Your task to perform on an android device: open a bookmark in the chrome app Image 0: 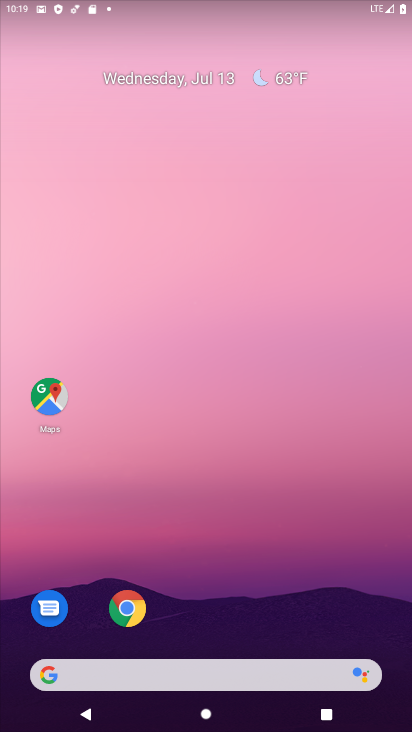
Step 0: click (127, 624)
Your task to perform on an android device: open a bookmark in the chrome app Image 1: 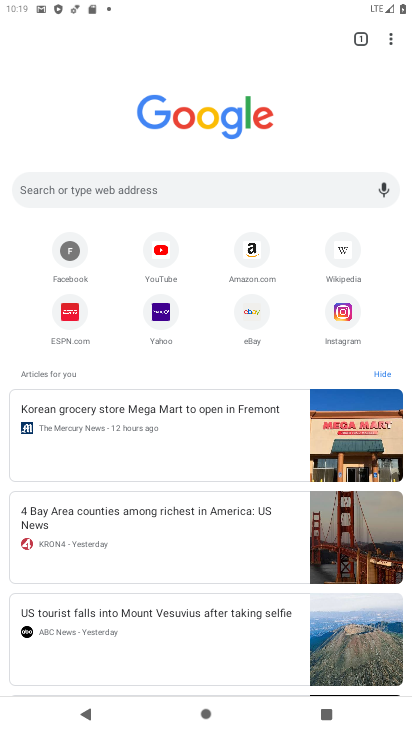
Step 1: click (394, 39)
Your task to perform on an android device: open a bookmark in the chrome app Image 2: 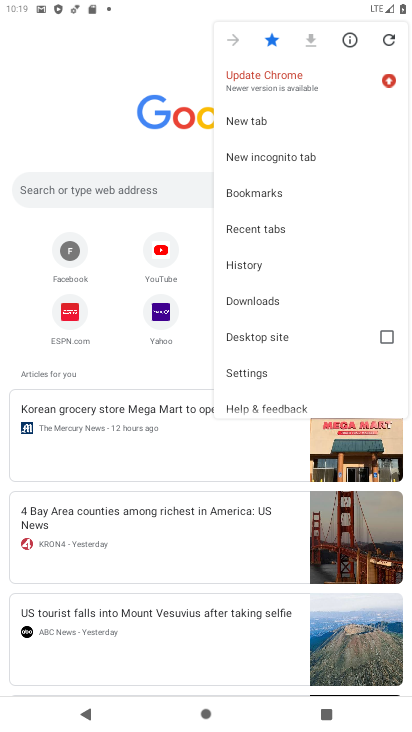
Step 2: click (261, 188)
Your task to perform on an android device: open a bookmark in the chrome app Image 3: 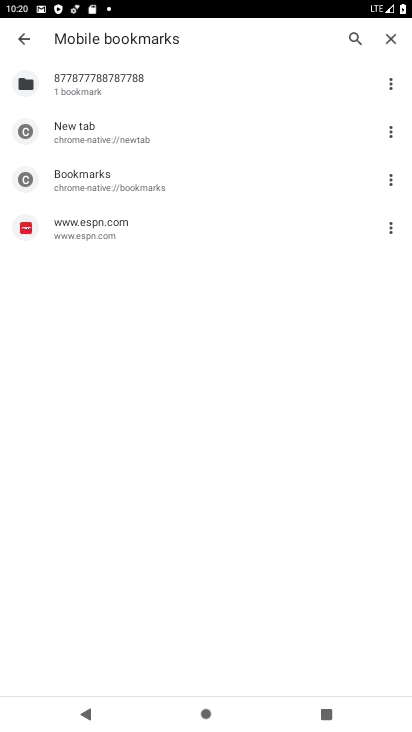
Step 3: click (114, 232)
Your task to perform on an android device: open a bookmark in the chrome app Image 4: 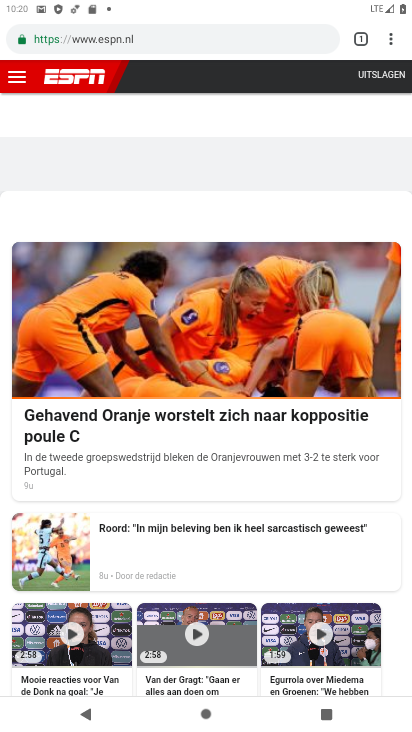
Step 4: task complete